Your task to perform on an android device: empty trash in google photos Image 0: 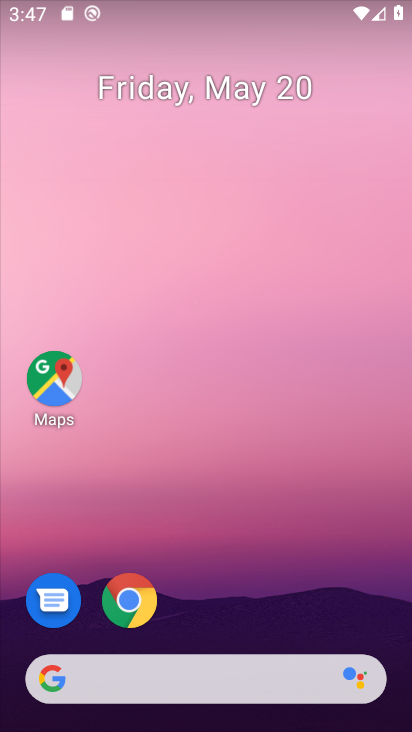
Step 0: drag from (226, 579) to (182, 52)
Your task to perform on an android device: empty trash in google photos Image 1: 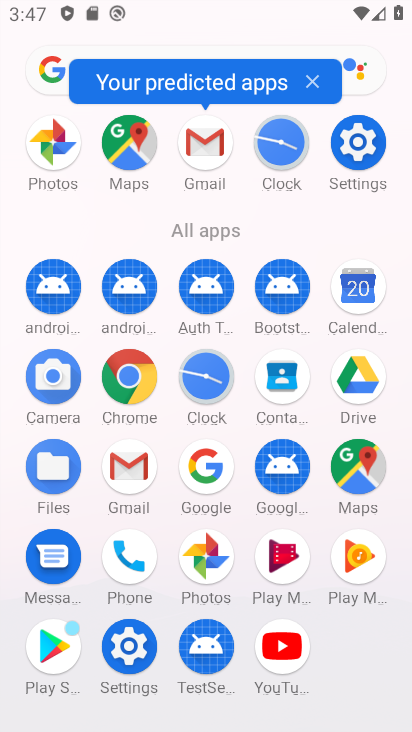
Step 1: drag from (19, 553) to (19, 307)
Your task to perform on an android device: empty trash in google photos Image 2: 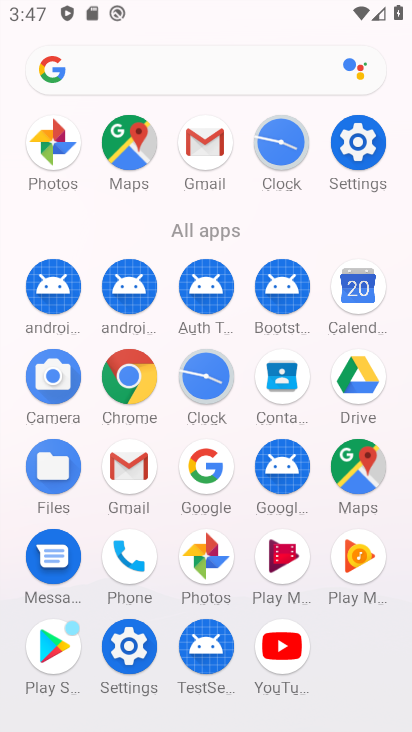
Step 2: click (204, 550)
Your task to perform on an android device: empty trash in google photos Image 3: 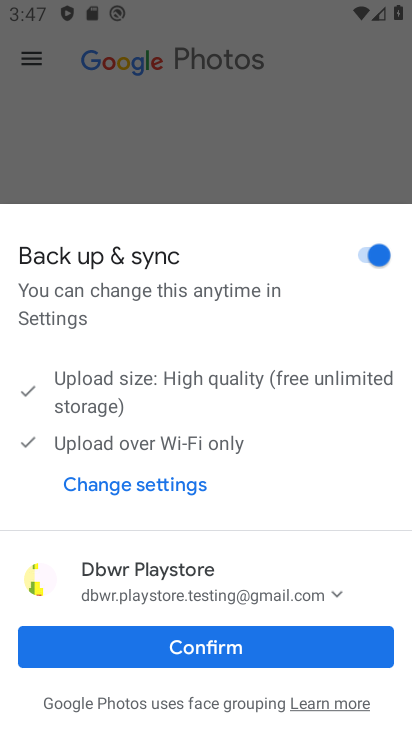
Step 3: click (197, 651)
Your task to perform on an android device: empty trash in google photos Image 4: 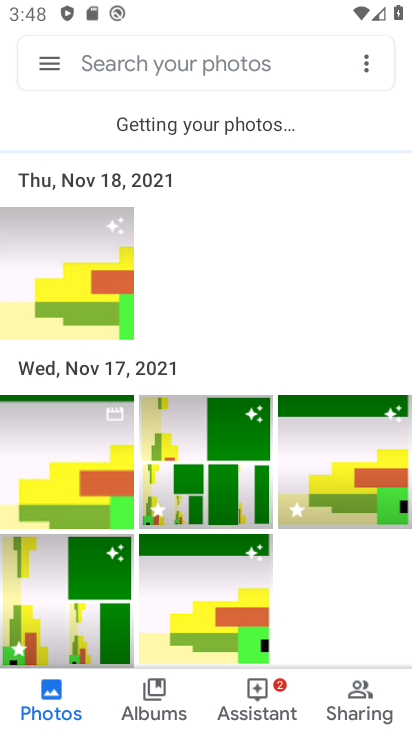
Step 4: drag from (282, 557) to (268, 279)
Your task to perform on an android device: empty trash in google photos Image 5: 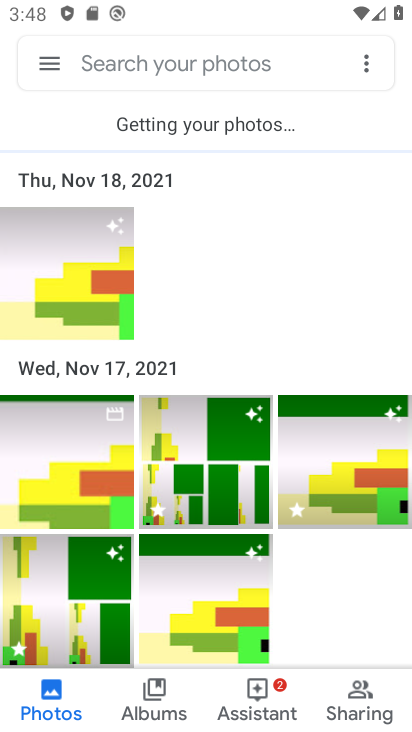
Step 5: click (59, 69)
Your task to perform on an android device: empty trash in google photos Image 6: 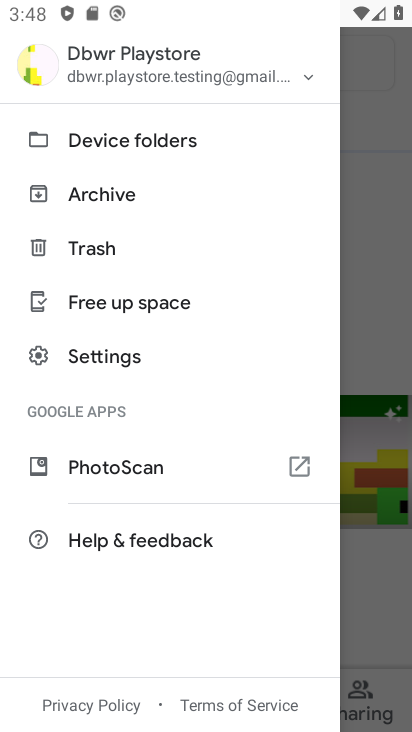
Step 6: click (107, 223)
Your task to perform on an android device: empty trash in google photos Image 7: 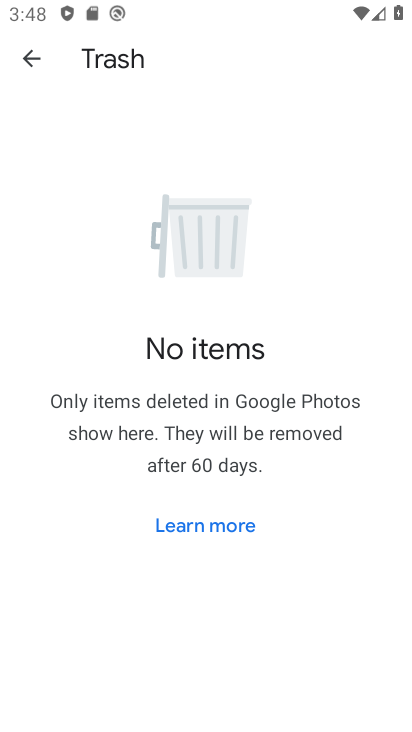
Step 7: task complete